Your task to perform on an android device: turn off wifi Image 0: 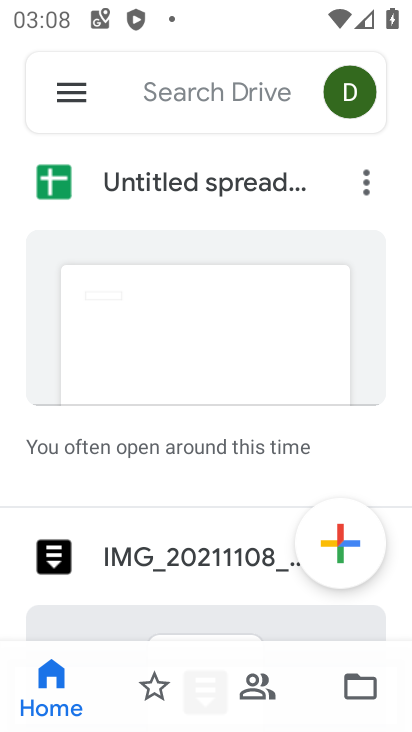
Step 0: press home button
Your task to perform on an android device: turn off wifi Image 1: 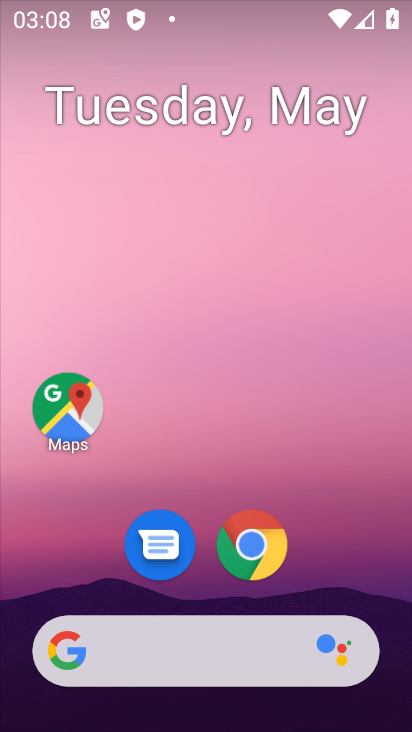
Step 1: drag from (391, 613) to (342, 78)
Your task to perform on an android device: turn off wifi Image 2: 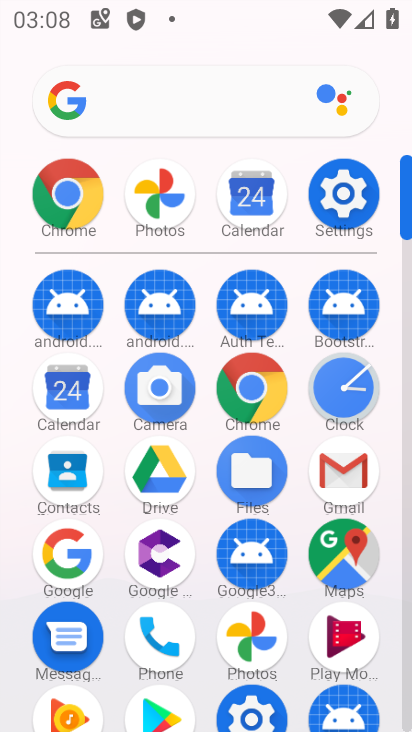
Step 2: click (407, 693)
Your task to perform on an android device: turn off wifi Image 3: 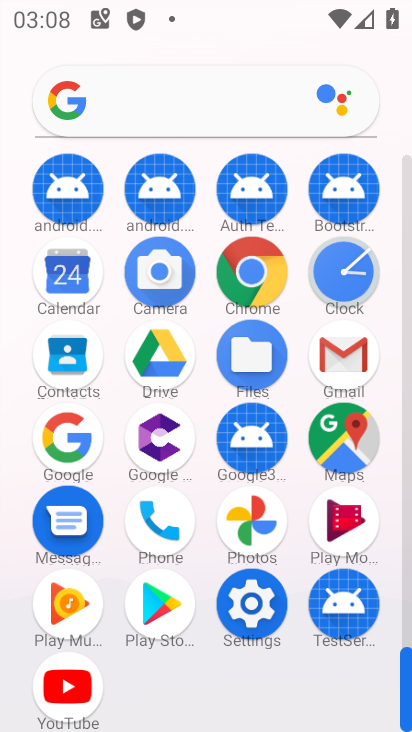
Step 3: click (248, 604)
Your task to perform on an android device: turn off wifi Image 4: 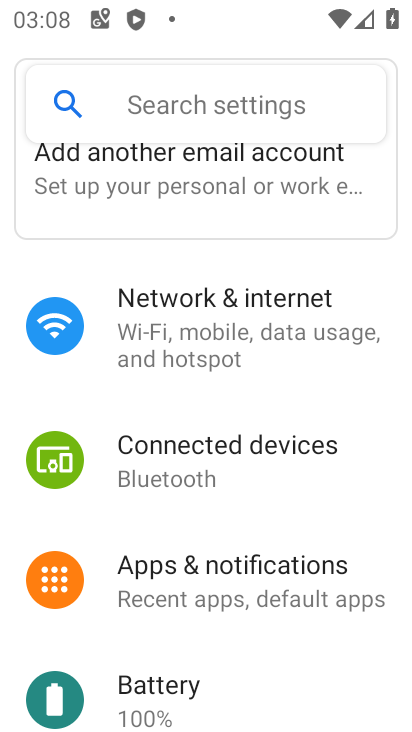
Step 4: click (166, 318)
Your task to perform on an android device: turn off wifi Image 5: 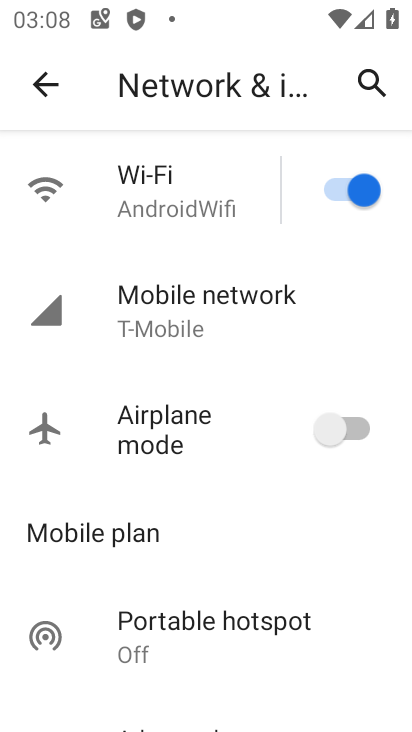
Step 5: click (332, 189)
Your task to perform on an android device: turn off wifi Image 6: 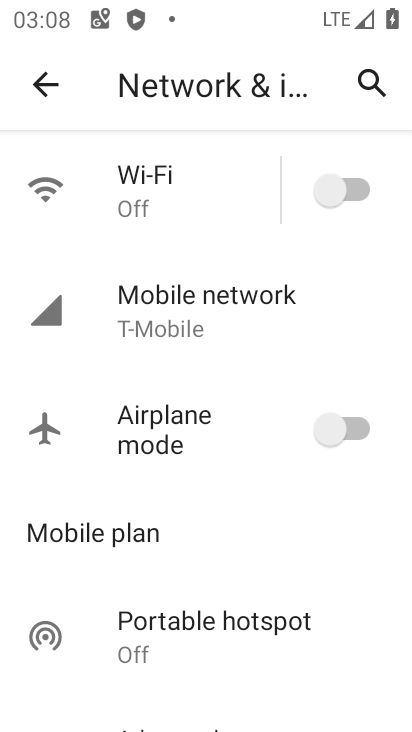
Step 6: task complete